Your task to perform on an android device: toggle translation in the chrome app Image 0: 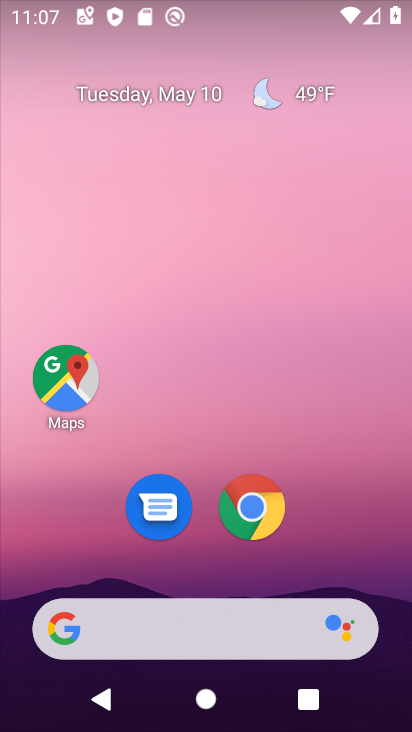
Step 0: click (252, 509)
Your task to perform on an android device: toggle translation in the chrome app Image 1: 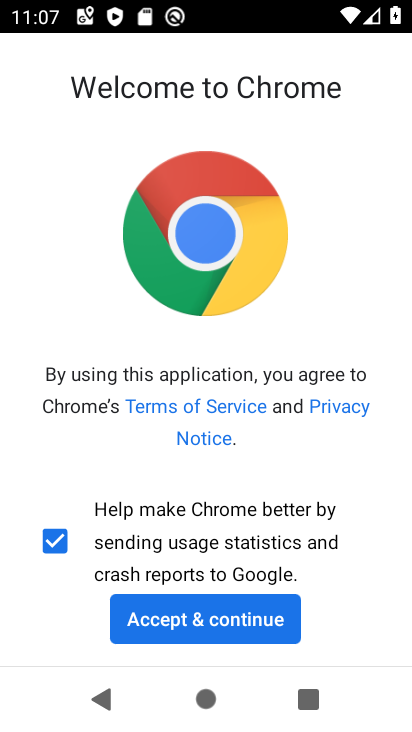
Step 1: click (194, 596)
Your task to perform on an android device: toggle translation in the chrome app Image 2: 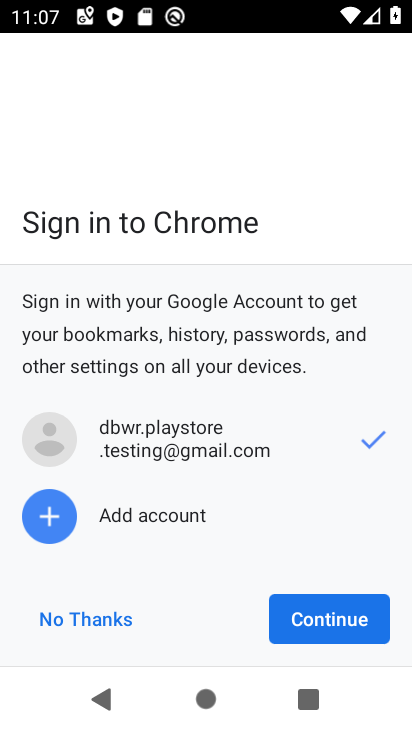
Step 2: click (345, 604)
Your task to perform on an android device: toggle translation in the chrome app Image 3: 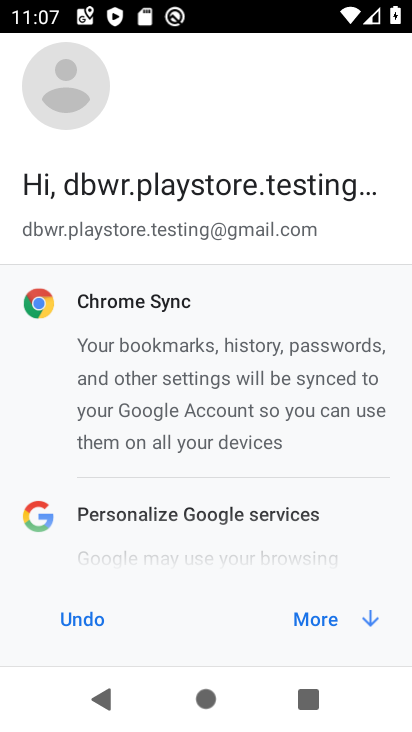
Step 3: click (329, 615)
Your task to perform on an android device: toggle translation in the chrome app Image 4: 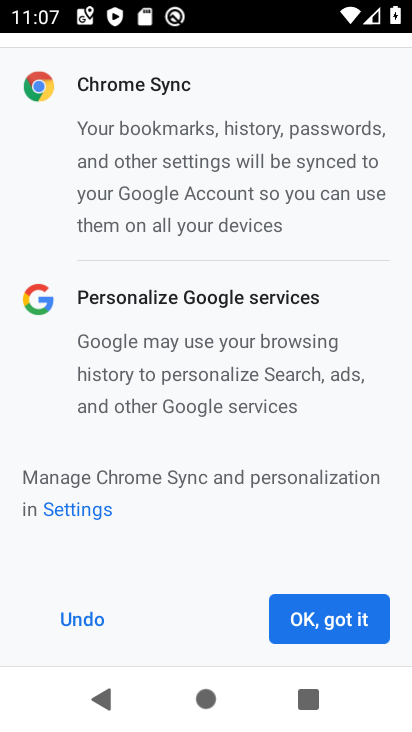
Step 4: click (329, 615)
Your task to perform on an android device: toggle translation in the chrome app Image 5: 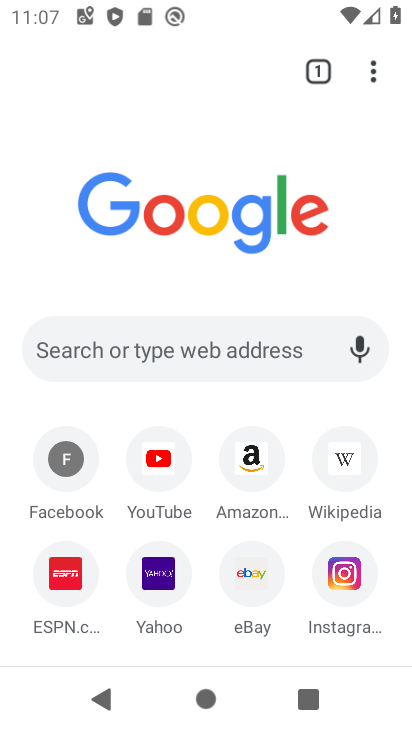
Step 5: click (363, 64)
Your task to perform on an android device: toggle translation in the chrome app Image 6: 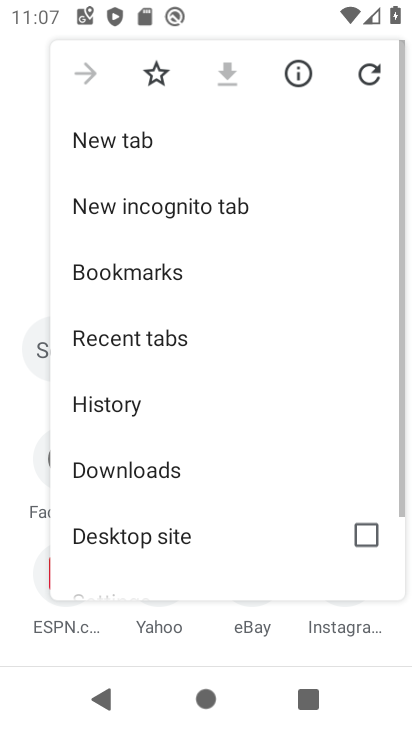
Step 6: drag from (190, 547) to (166, 234)
Your task to perform on an android device: toggle translation in the chrome app Image 7: 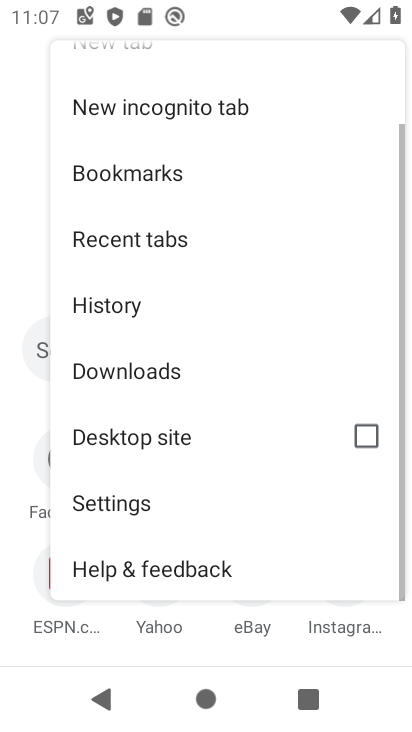
Step 7: click (140, 499)
Your task to perform on an android device: toggle translation in the chrome app Image 8: 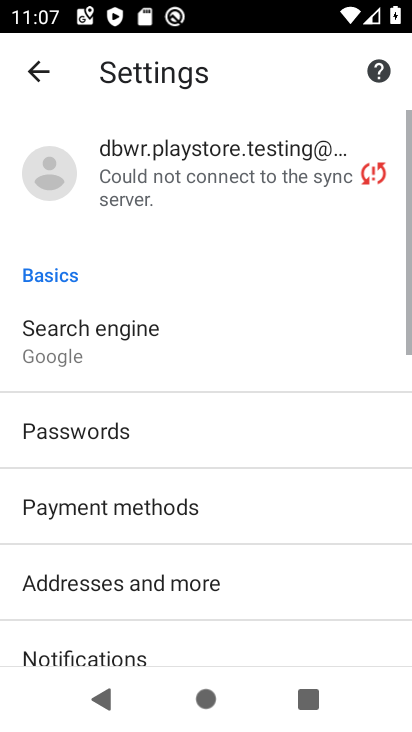
Step 8: drag from (192, 592) to (262, 82)
Your task to perform on an android device: toggle translation in the chrome app Image 9: 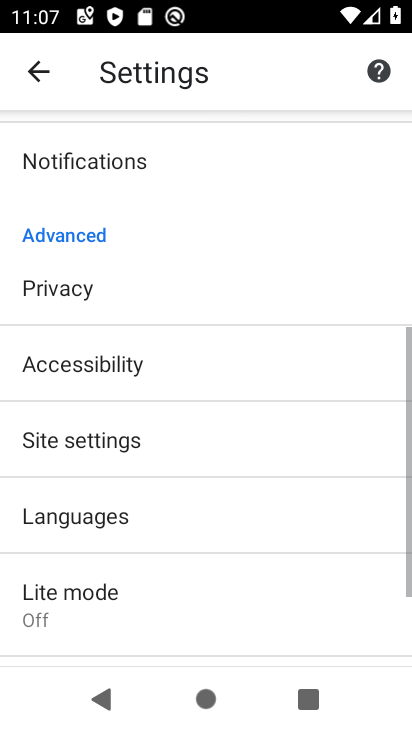
Step 9: drag from (218, 615) to (304, 110)
Your task to perform on an android device: toggle translation in the chrome app Image 10: 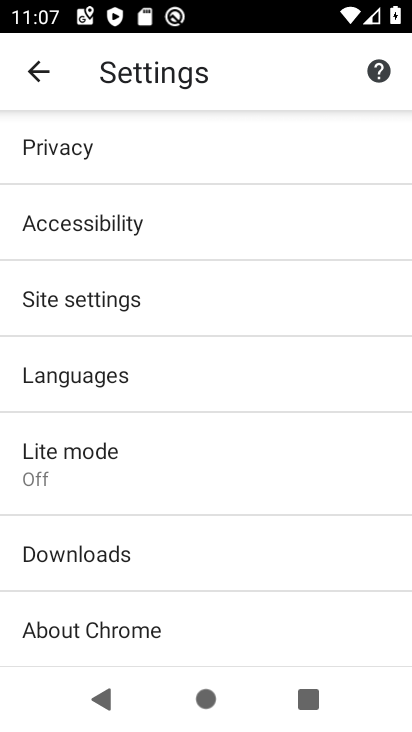
Step 10: click (125, 380)
Your task to perform on an android device: toggle translation in the chrome app Image 11: 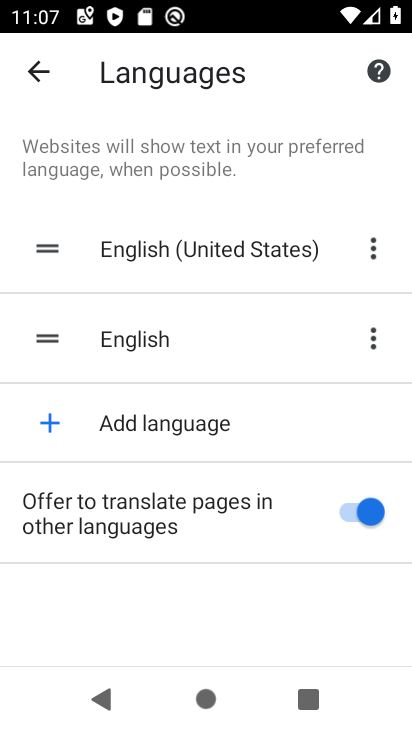
Step 11: click (357, 516)
Your task to perform on an android device: toggle translation in the chrome app Image 12: 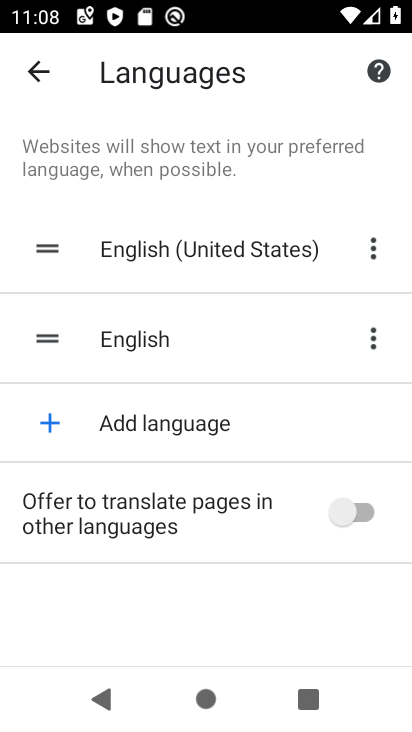
Step 12: task complete